Your task to perform on an android device: Go to accessibility settings Image 0: 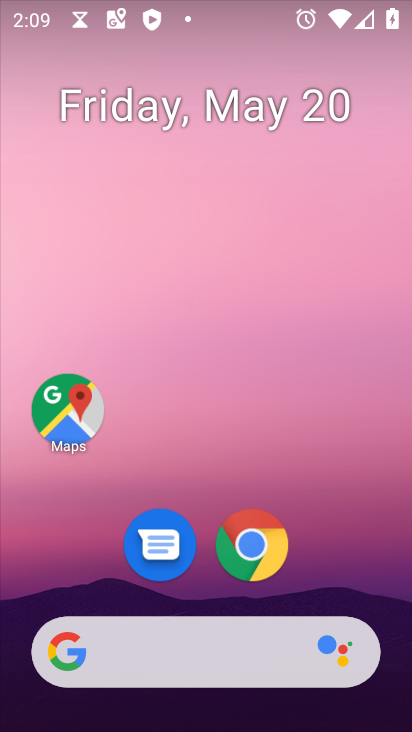
Step 0: drag from (340, 583) to (263, 96)
Your task to perform on an android device: Go to accessibility settings Image 1: 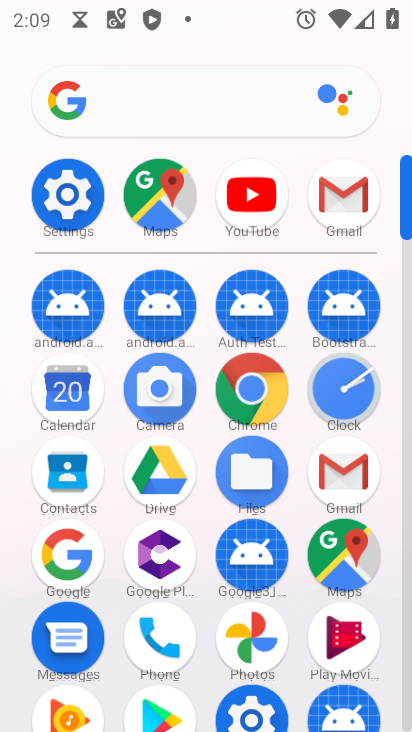
Step 1: click (70, 193)
Your task to perform on an android device: Go to accessibility settings Image 2: 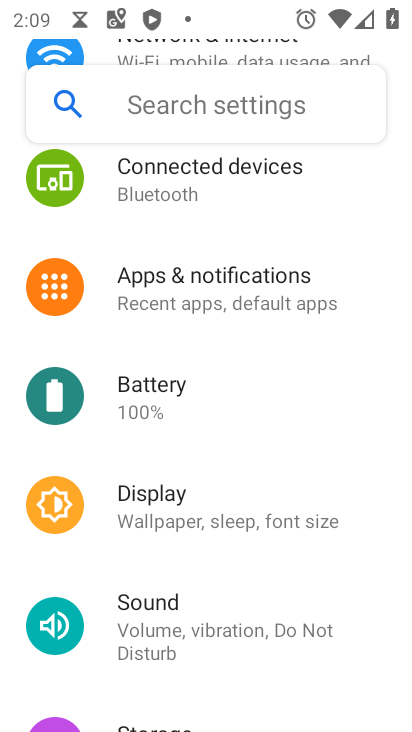
Step 2: drag from (333, 643) to (289, 273)
Your task to perform on an android device: Go to accessibility settings Image 3: 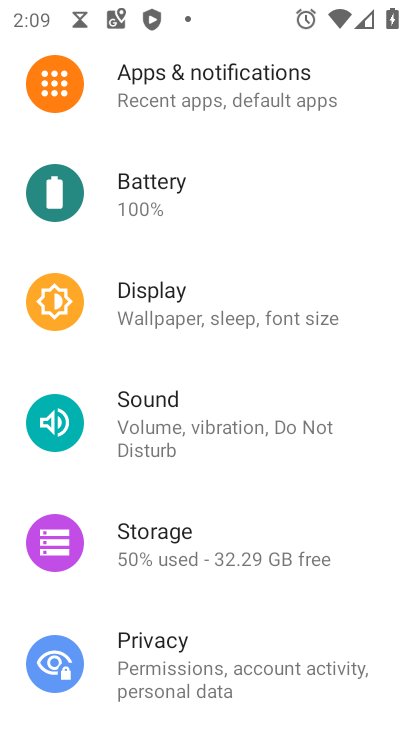
Step 3: drag from (310, 640) to (305, 251)
Your task to perform on an android device: Go to accessibility settings Image 4: 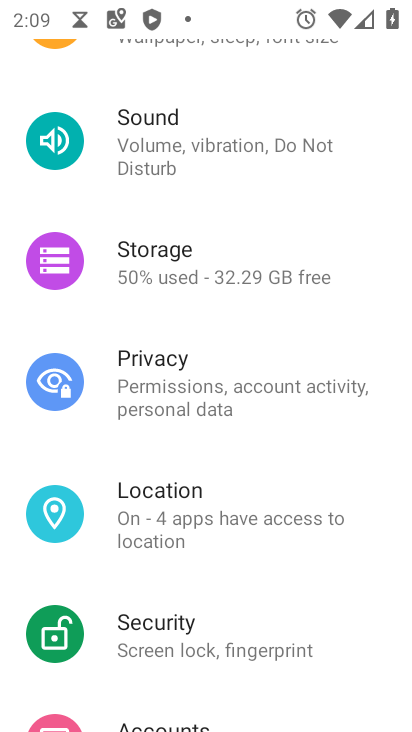
Step 4: drag from (303, 599) to (292, 252)
Your task to perform on an android device: Go to accessibility settings Image 5: 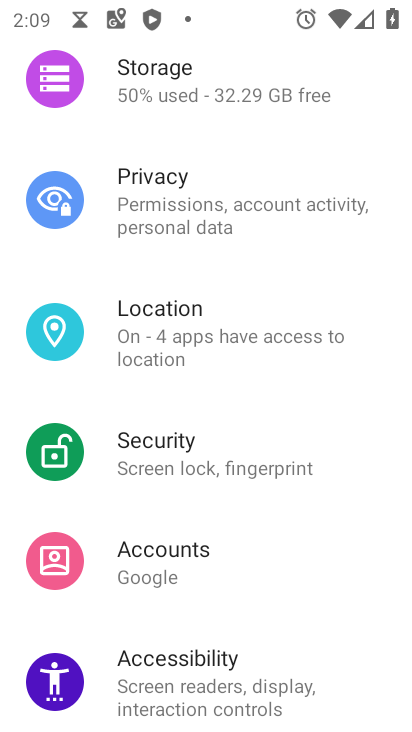
Step 5: click (216, 688)
Your task to perform on an android device: Go to accessibility settings Image 6: 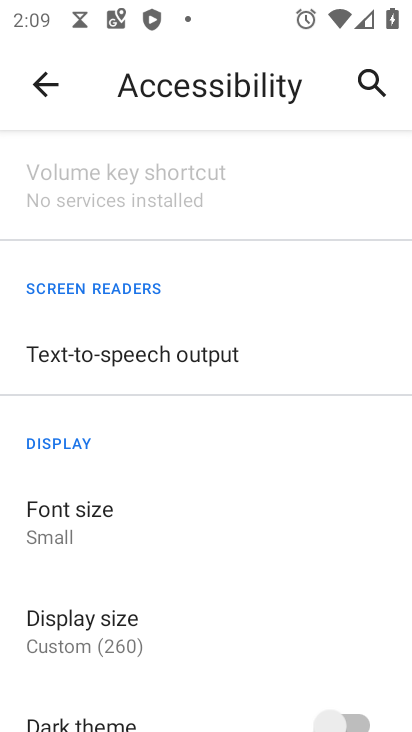
Step 6: task complete